Your task to perform on an android device: Open calendar and show me the second week of next month Image 0: 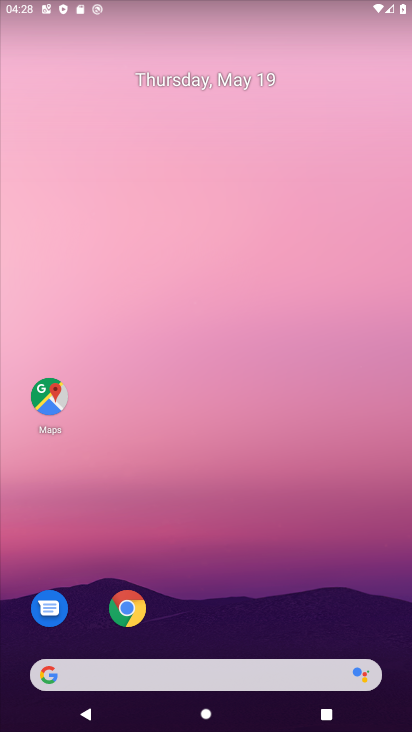
Step 0: drag from (282, 582) to (190, 168)
Your task to perform on an android device: Open calendar and show me the second week of next month Image 1: 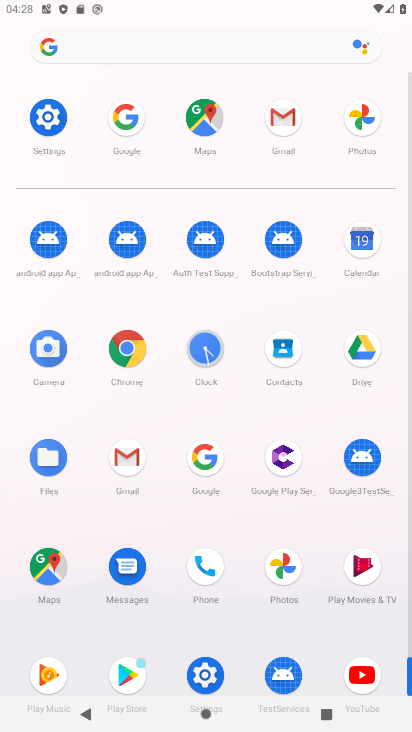
Step 1: click (360, 243)
Your task to perform on an android device: Open calendar and show me the second week of next month Image 2: 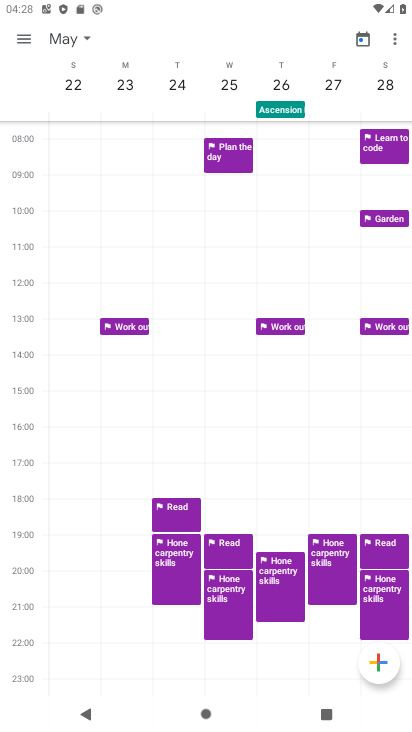
Step 2: click (363, 42)
Your task to perform on an android device: Open calendar and show me the second week of next month Image 3: 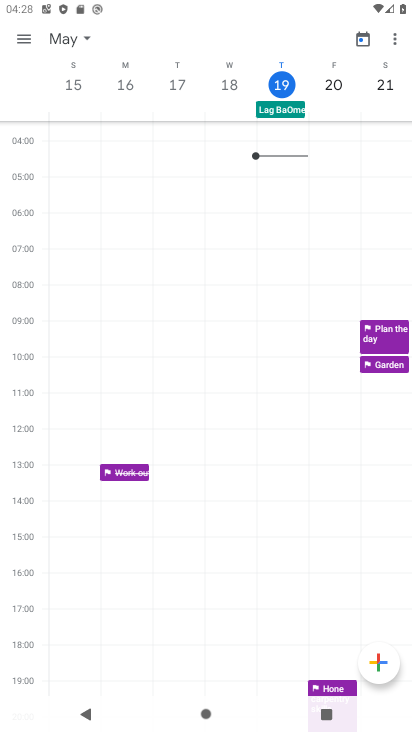
Step 3: click (89, 38)
Your task to perform on an android device: Open calendar and show me the second week of next month Image 4: 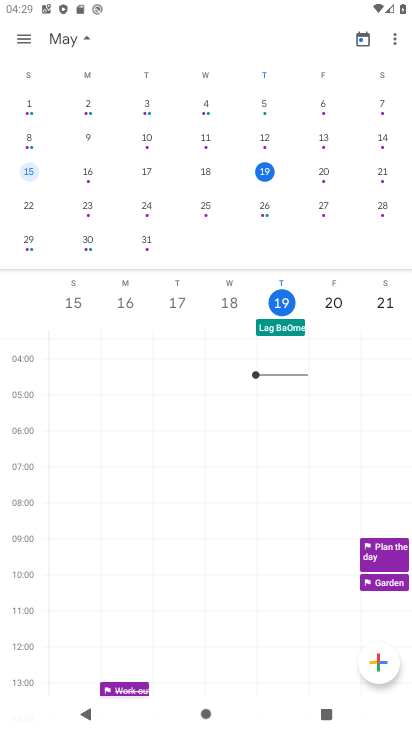
Step 4: drag from (374, 165) to (0, 163)
Your task to perform on an android device: Open calendar and show me the second week of next month Image 5: 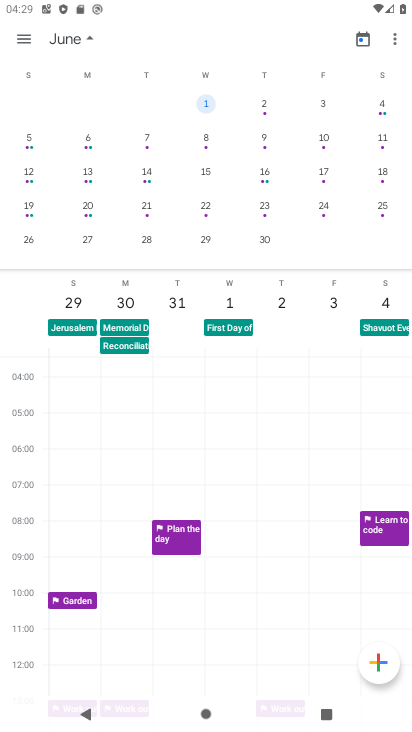
Step 5: click (86, 170)
Your task to perform on an android device: Open calendar and show me the second week of next month Image 6: 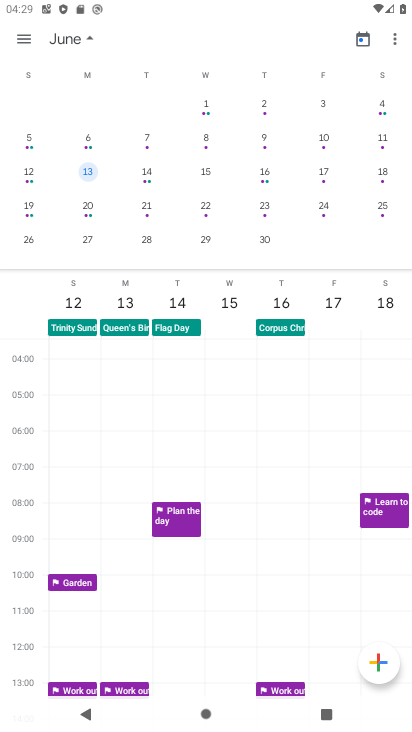
Step 6: click (20, 35)
Your task to perform on an android device: Open calendar and show me the second week of next month Image 7: 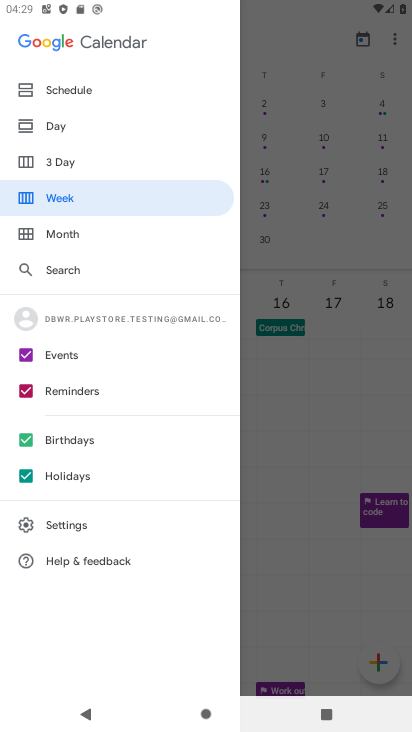
Step 7: click (52, 195)
Your task to perform on an android device: Open calendar and show me the second week of next month Image 8: 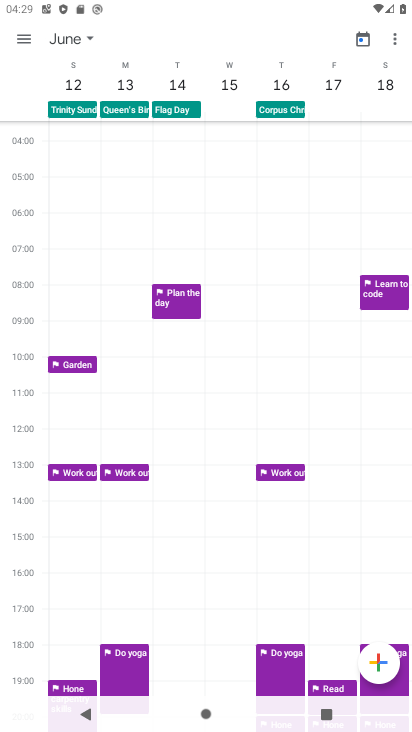
Step 8: task complete